Your task to perform on an android device: turn pop-ups off in chrome Image 0: 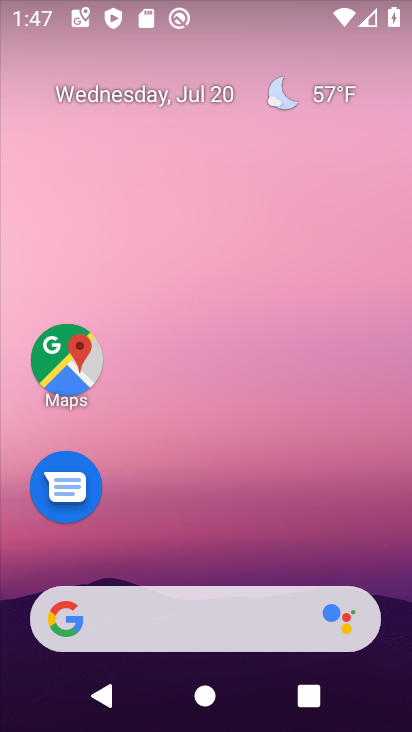
Step 0: drag from (245, 565) to (231, 2)
Your task to perform on an android device: turn pop-ups off in chrome Image 1: 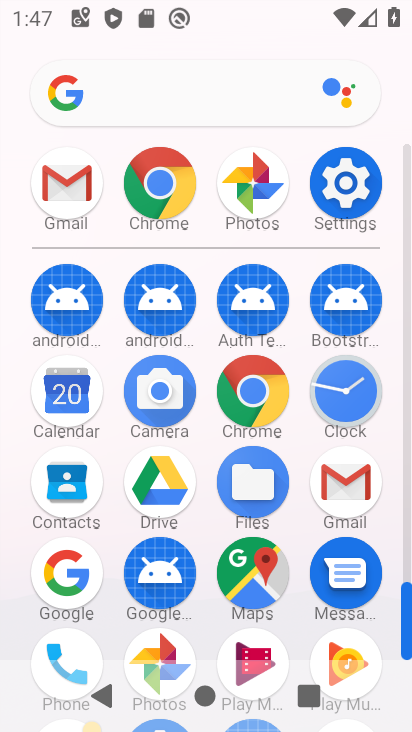
Step 1: click (167, 174)
Your task to perform on an android device: turn pop-ups off in chrome Image 2: 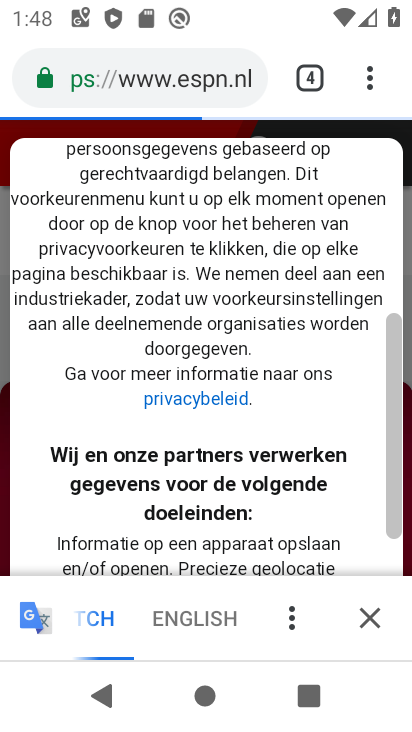
Step 2: drag from (363, 71) to (122, 528)
Your task to perform on an android device: turn pop-ups off in chrome Image 3: 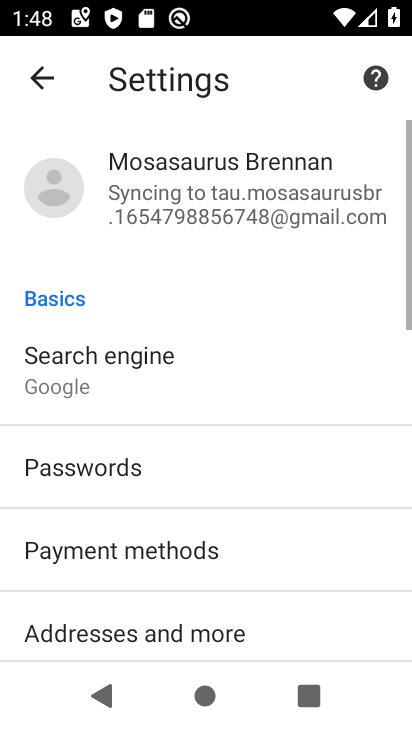
Step 3: drag from (147, 632) to (198, 181)
Your task to perform on an android device: turn pop-ups off in chrome Image 4: 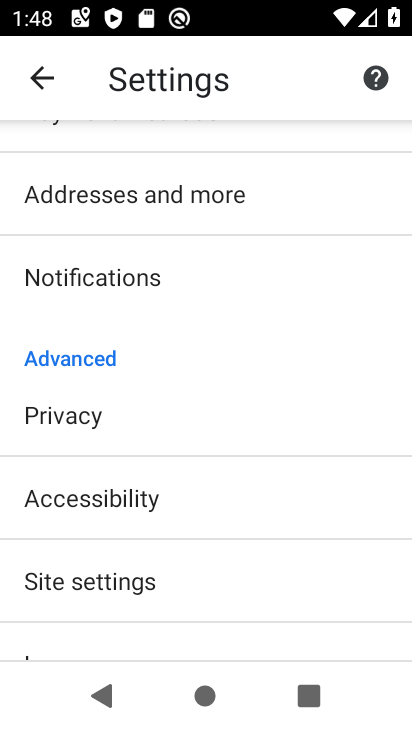
Step 4: click (97, 576)
Your task to perform on an android device: turn pop-ups off in chrome Image 5: 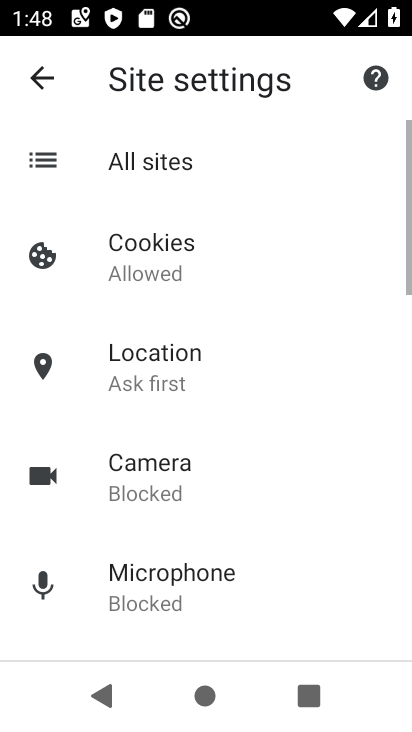
Step 5: drag from (130, 612) to (182, 65)
Your task to perform on an android device: turn pop-ups off in chrome Image 6: 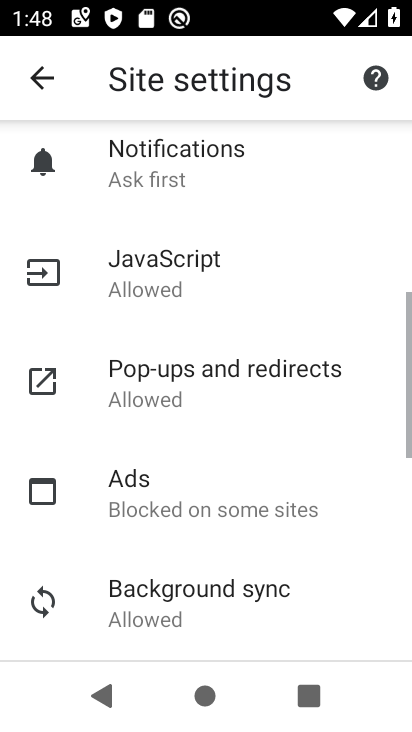
Step 6: click (181, 386)
Your task to perform on an android device: turn pop-ups off in chrome Image 7: 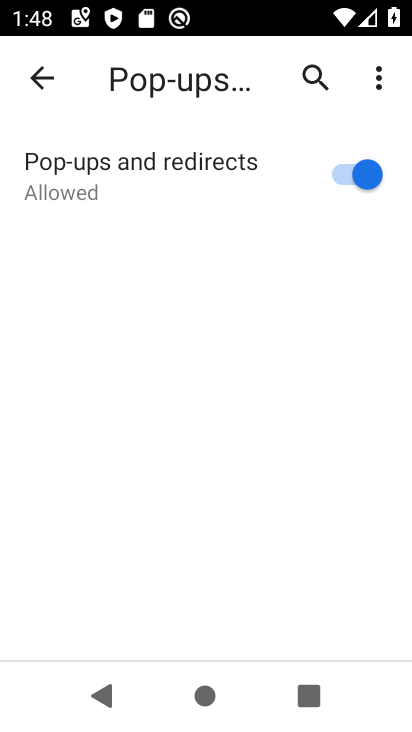
Step 7: click (358, 168)
Your task to perform on an android device: turn pop-ups off in chrome Image 8: 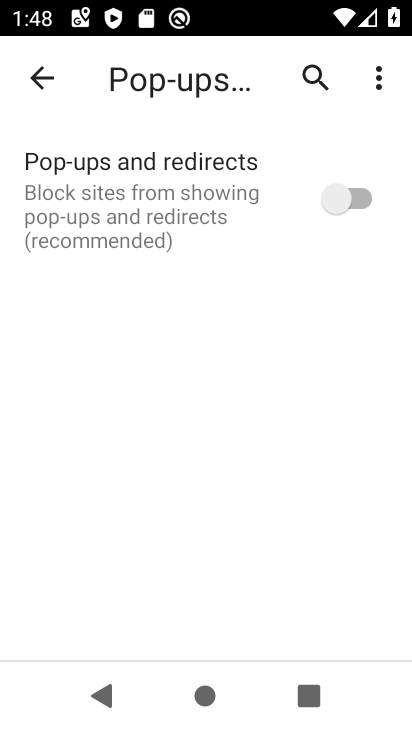
Step 8: task complete